Your task to perform on an android device: turn on notifications settings in the gmail app Image 0: 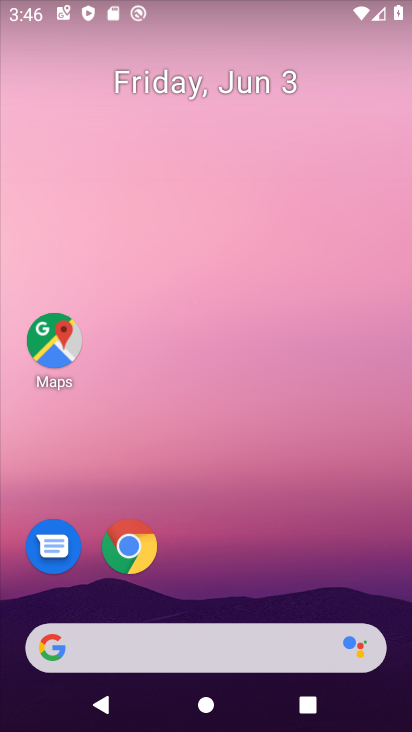
Step 0: drag from (241, 565) to (257, 7)
Your task to perform on an android device: turn on notifications settings in the gmail app Image 1: 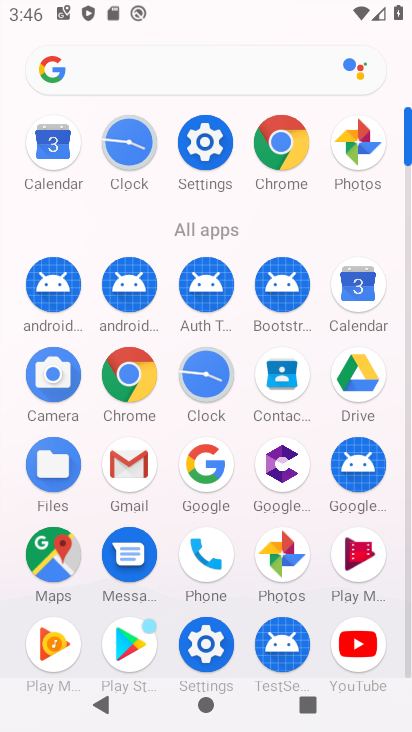
Step 1: click (139, 474)
Your task to perform on an android device: turn on notifications settings in the gmail app Image 2: 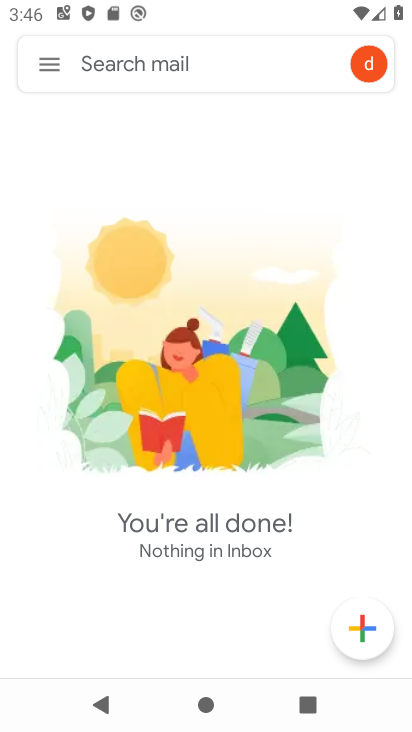
Step 2: click (48, 63)
Your task to perform on an android device: turn on notifications settings in the gmail app Image 3: 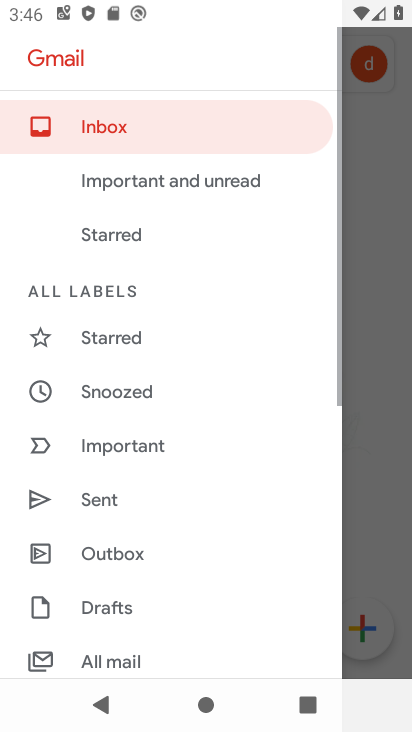
Step 3: drag from (148, 540) to (205, 205)
Your task to perform on an android device: turn on notifications settings in the gmail app Image 4: 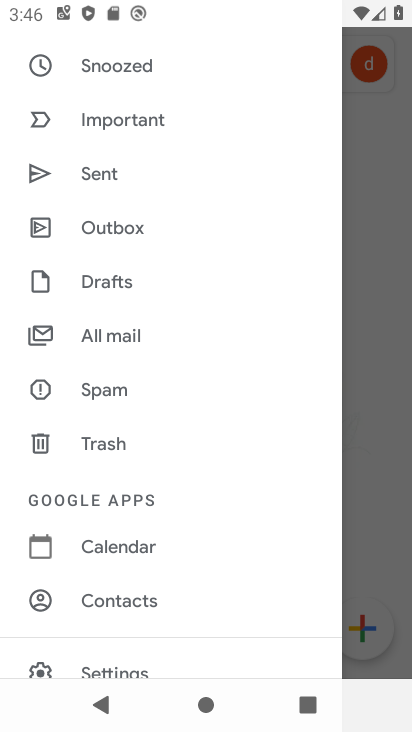
Step 4: click (158, 664)
Your task to perform on an android device: turn on notifications settings in the gmail app Image 5: 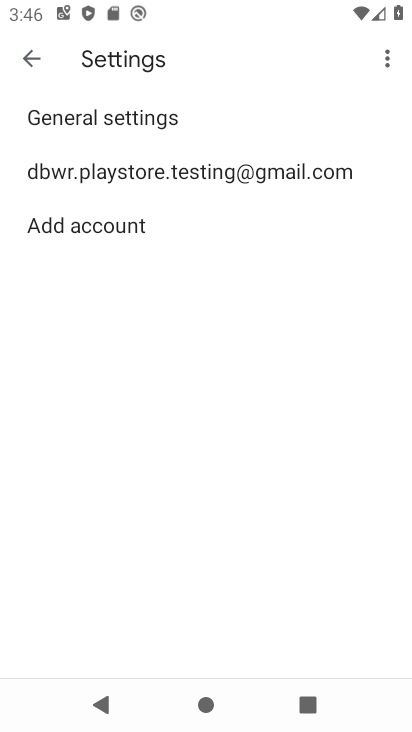
Step 5: click (229, 168)
Your task to perform on an android device: turn on notifications settings in the gmail app Image 6: 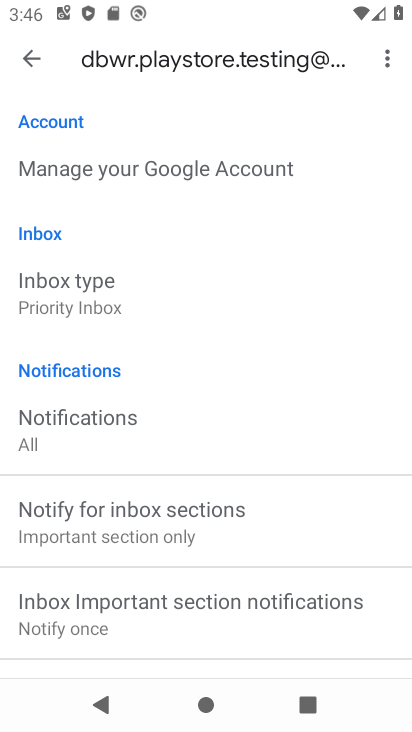
Step 6: drag from (240, 523) to (292, 214)
Your task to perform on an android device: turn on notifications settings in the gmail app Image 7: 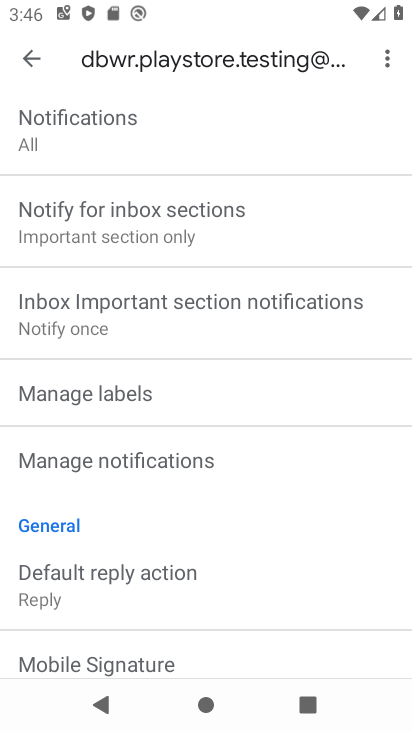
Step 7: click (224, 460)
Your task to perform on an android device: turn on notifications settings in the gmail app Image 8: 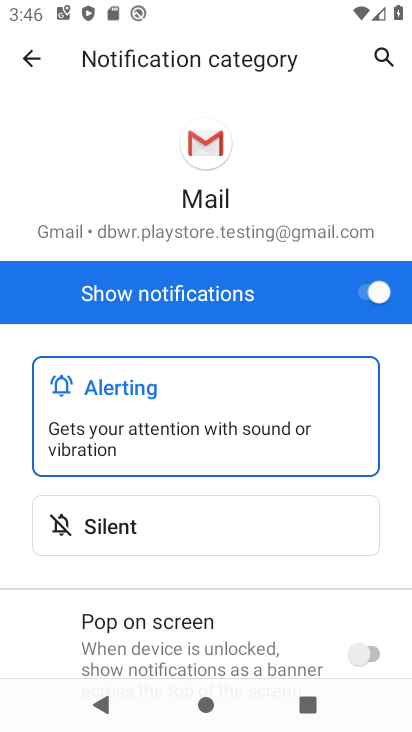
Step 8: task complete